Your task to perform on an android device: install app "Pandora - Music & Podcasts" Image 0: 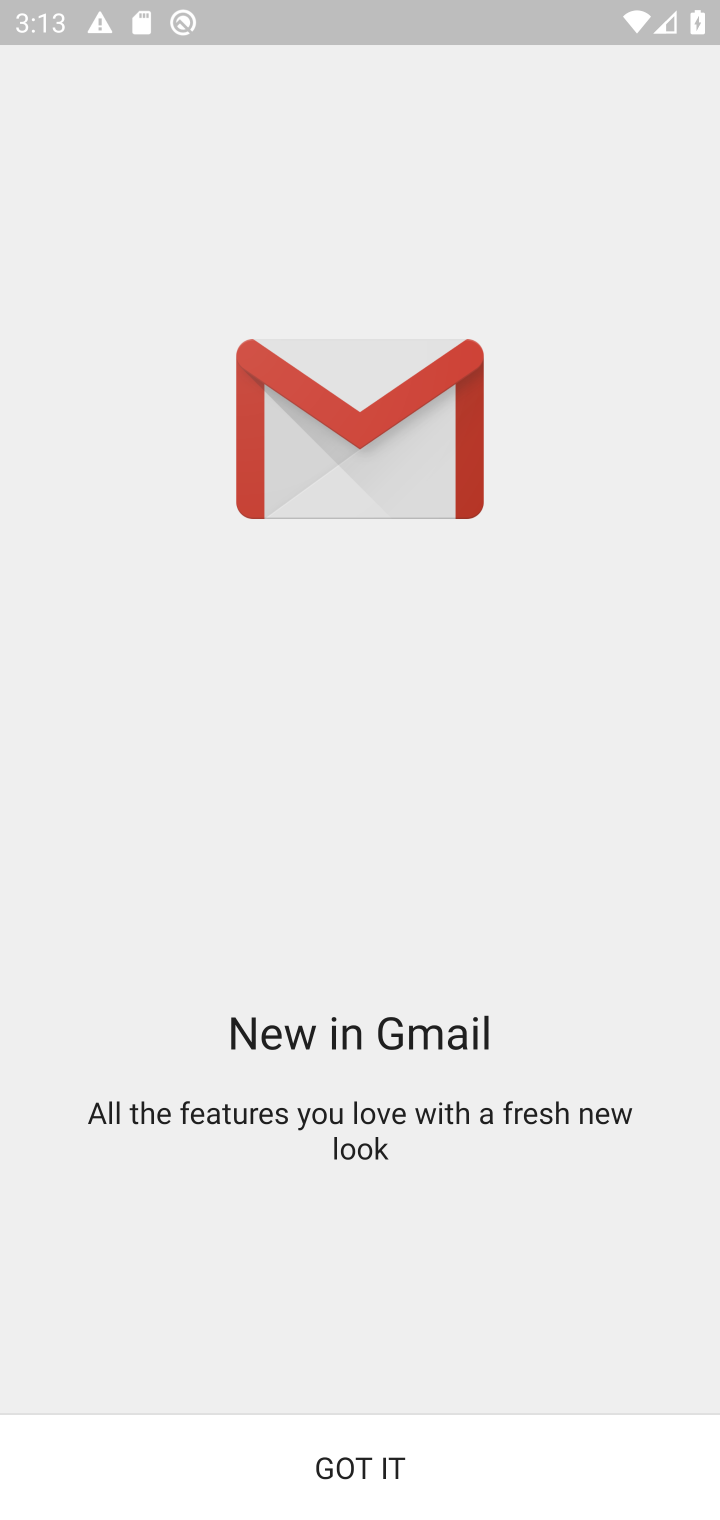
Step 0: press home button
Your task to perform on an android device: install app "Pandora - Music & Podcasts" Image 1: 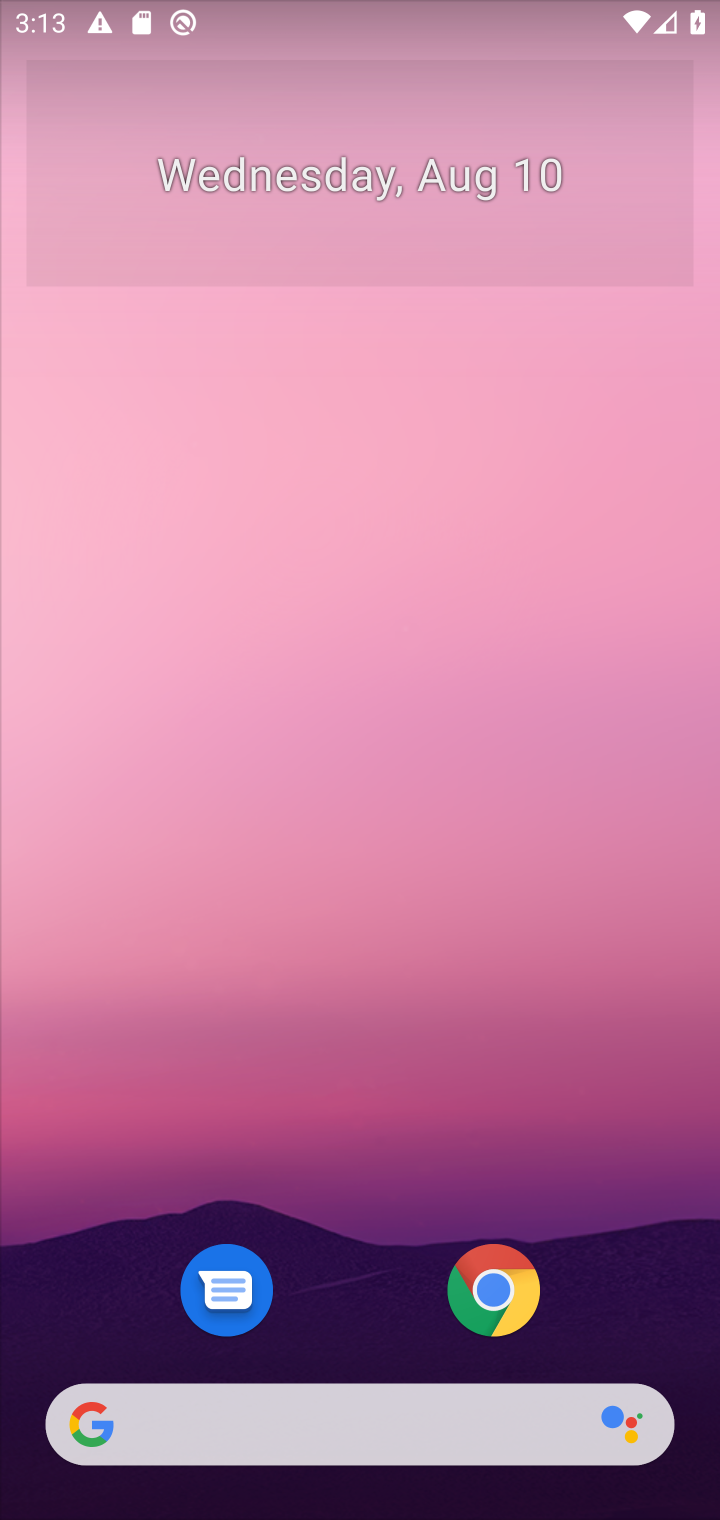
Step 1: drag from (401, 1362) to (189, 125)
Your task to perform on an android device: install app "Pandora - Music & Podcasts" Image 2: 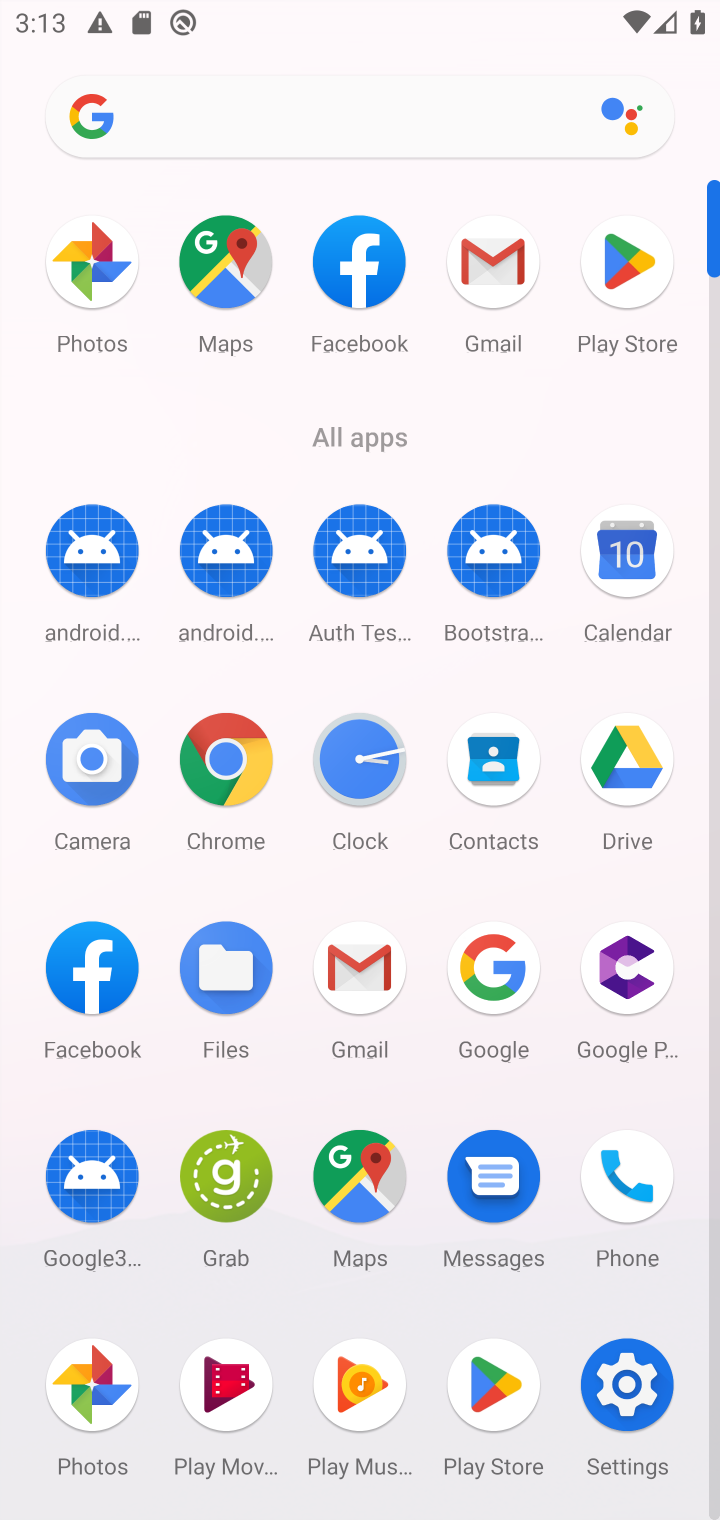
Step 2: click (502, 1405)
Your task to perform on an android device: install app "Pandora - Music & Podcasts" Image 3: 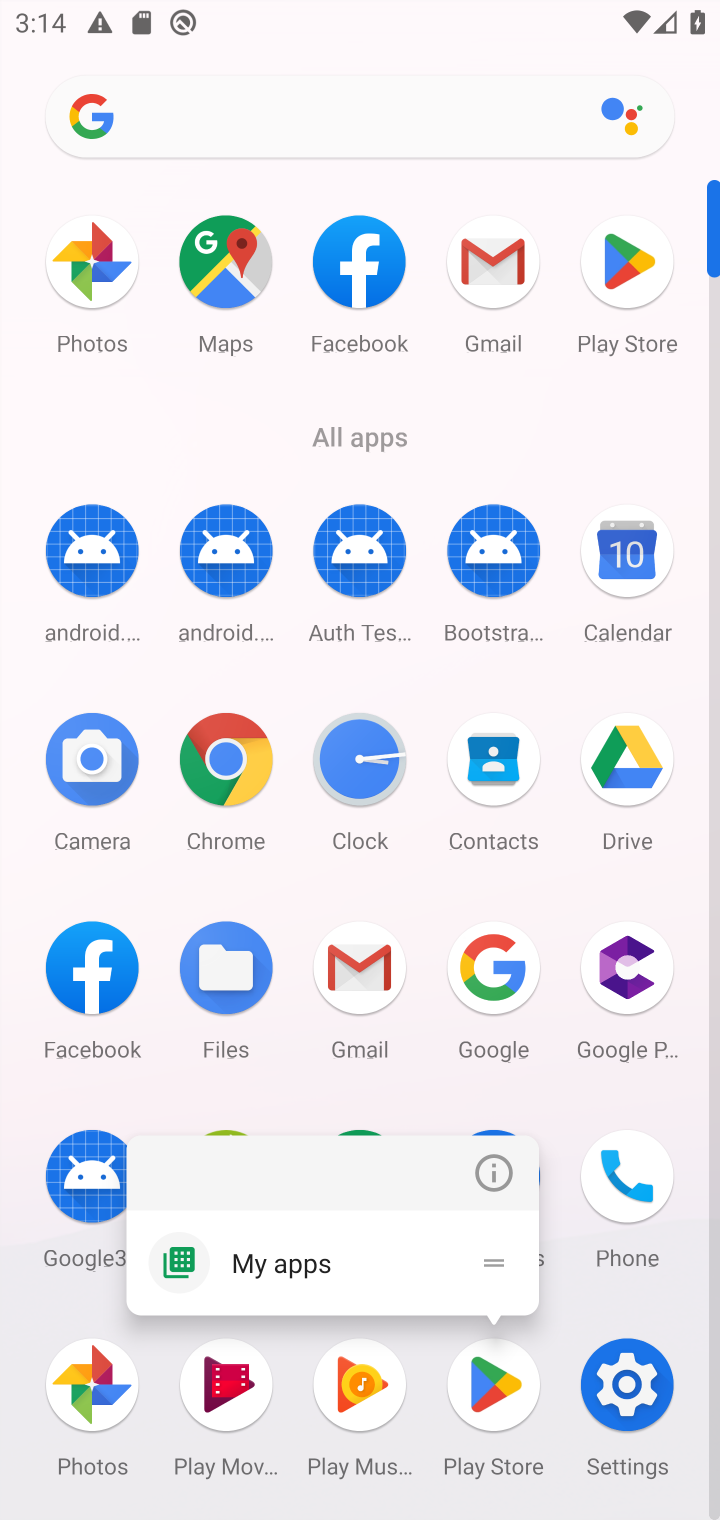
Step 3: click (612, 280)
Your task to perform on an android device: install app "Pandora - Music & Podcasts" Image 4: 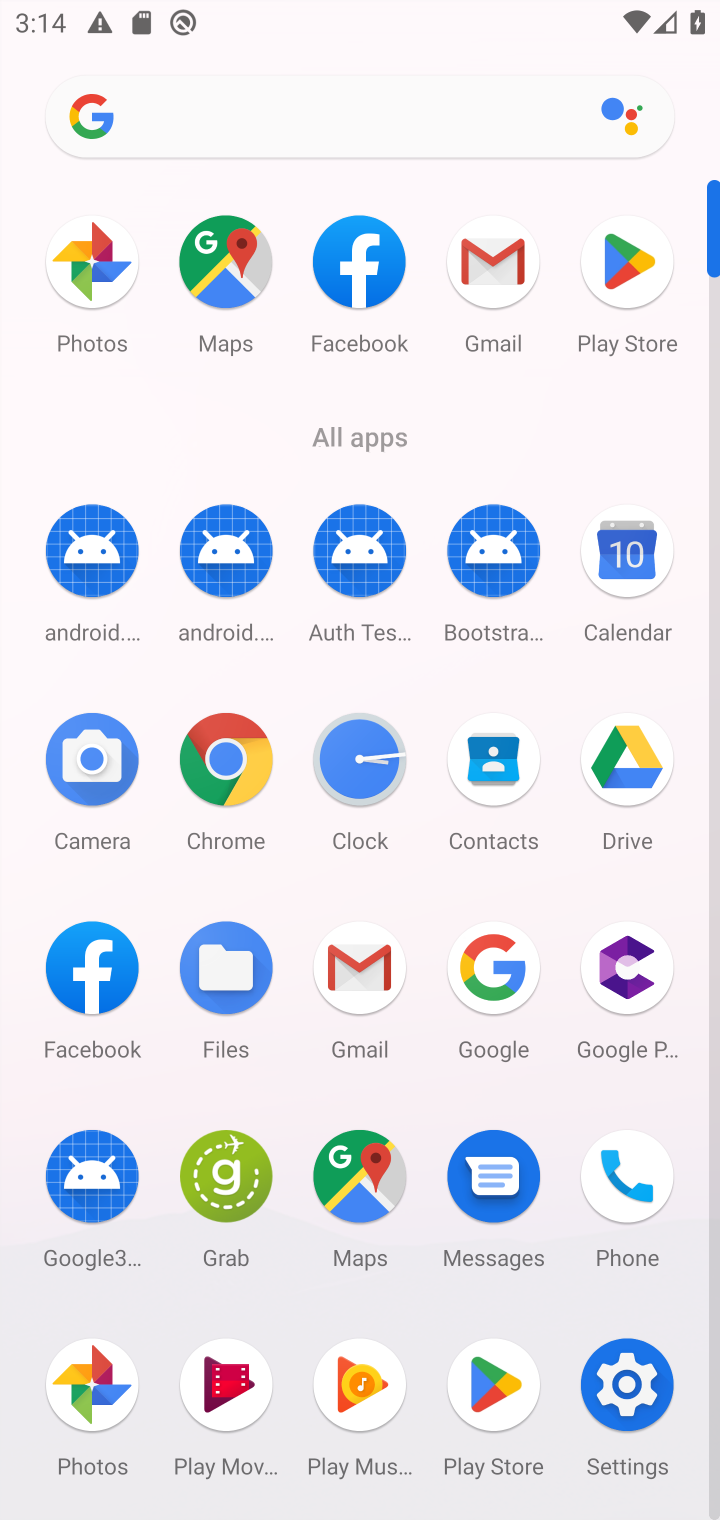
Step 4: click (620, 249)
Your task to perform on an android device: install app "Pandora - Music & Podcasts" Image 5: 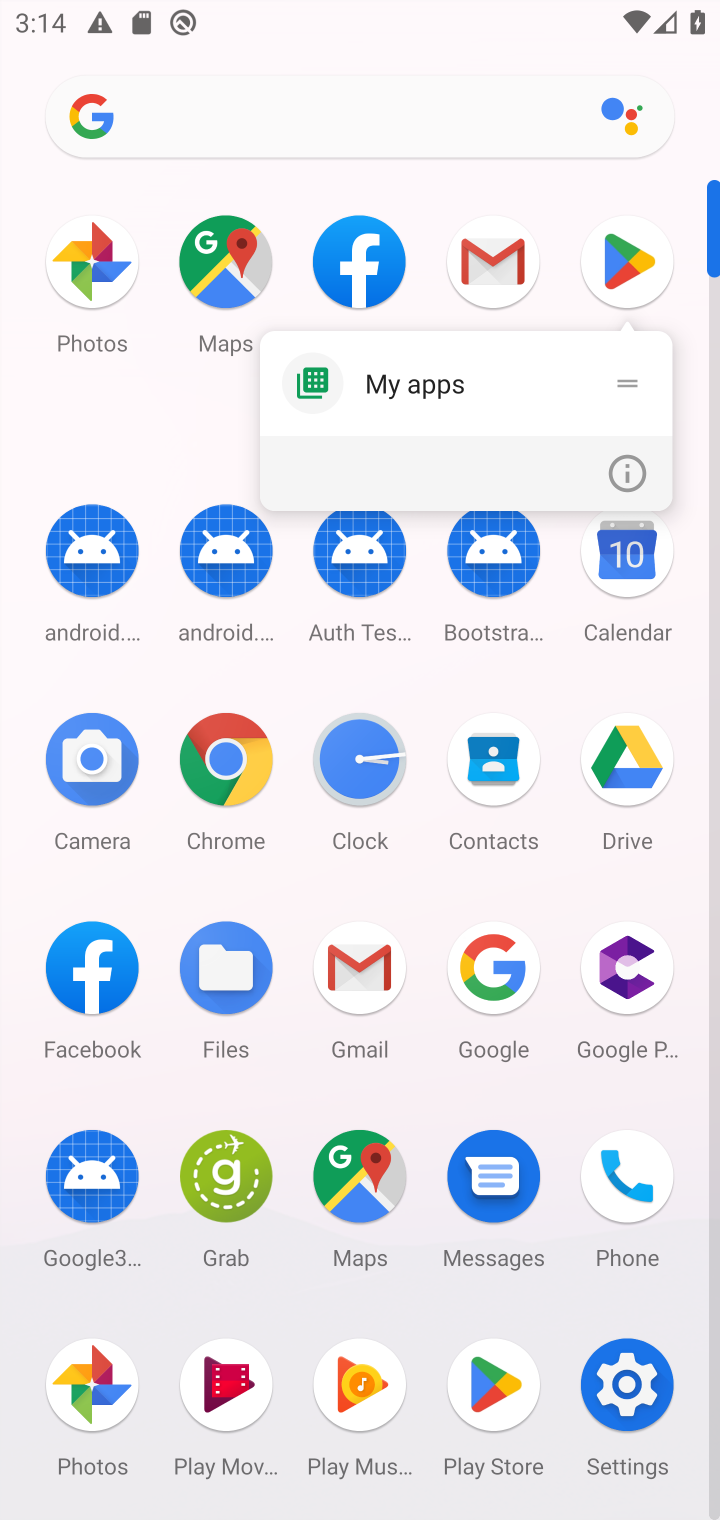
Step 5: click (626, 252)
Your task to perform on an android device: install app "Pandora - Music & Podcasts" Image 6: 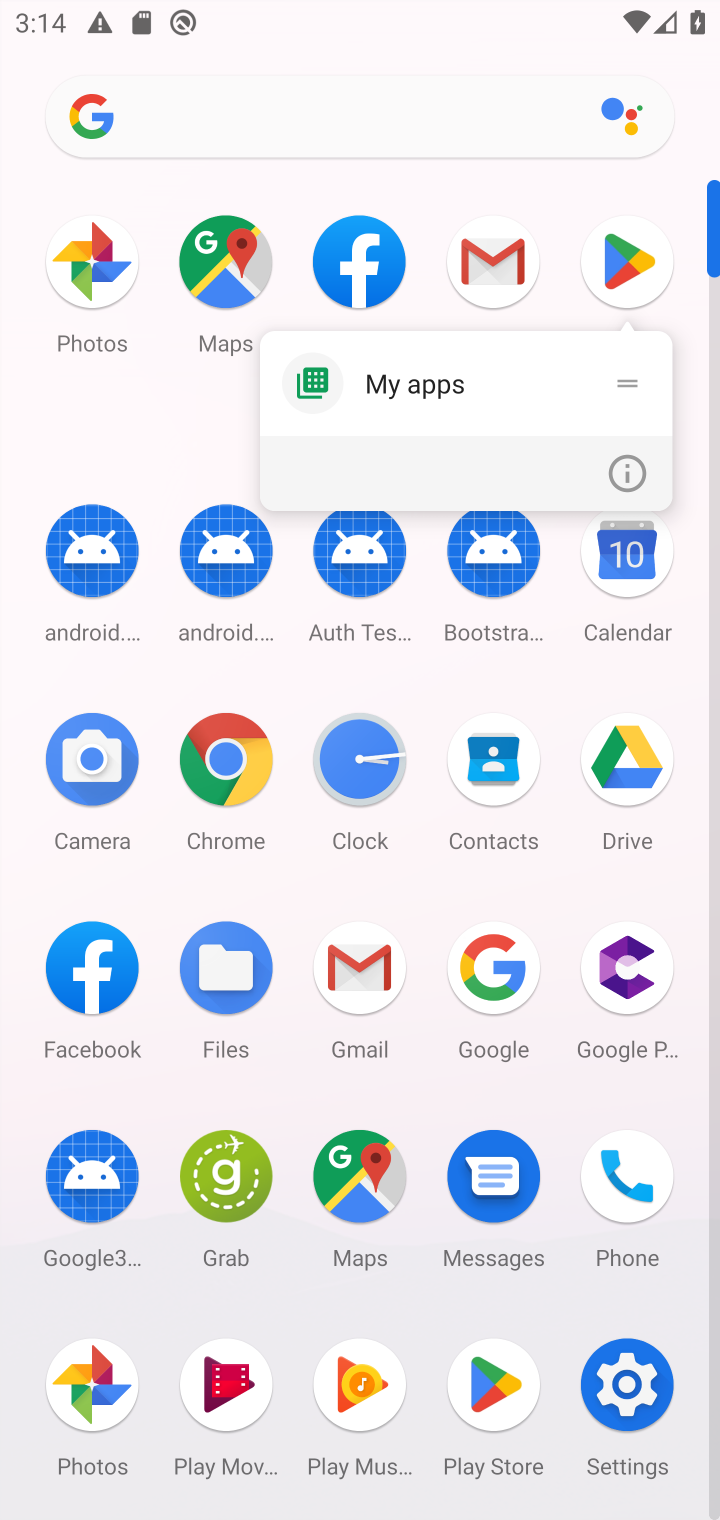
Step 6: click (626, 252)
Your task to perform on an android device: install app "Pandora - Music & Podcasts" Image 7: 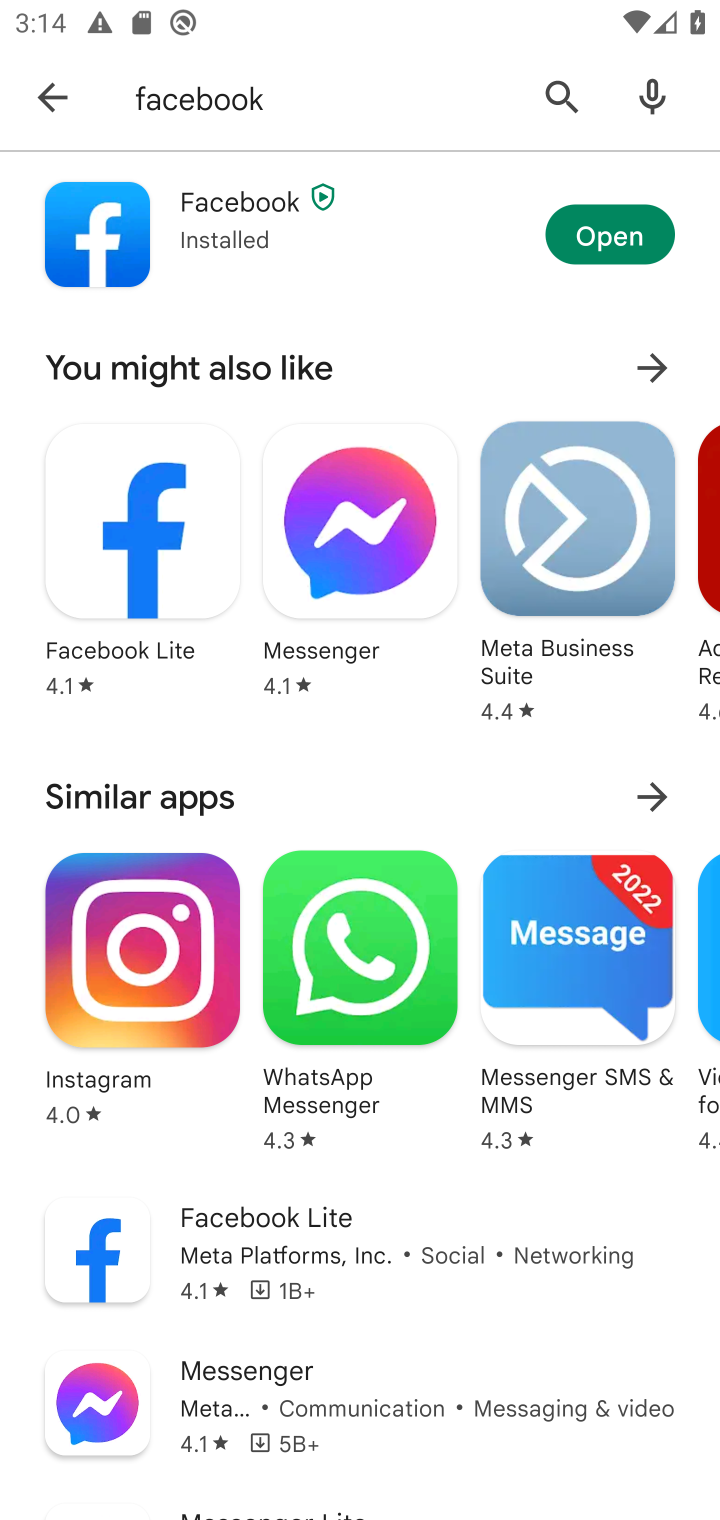
Step 7: click (48, 109)
Your task to perform on an android device: install app "Pandora - Music & Podcasts" Image 8: 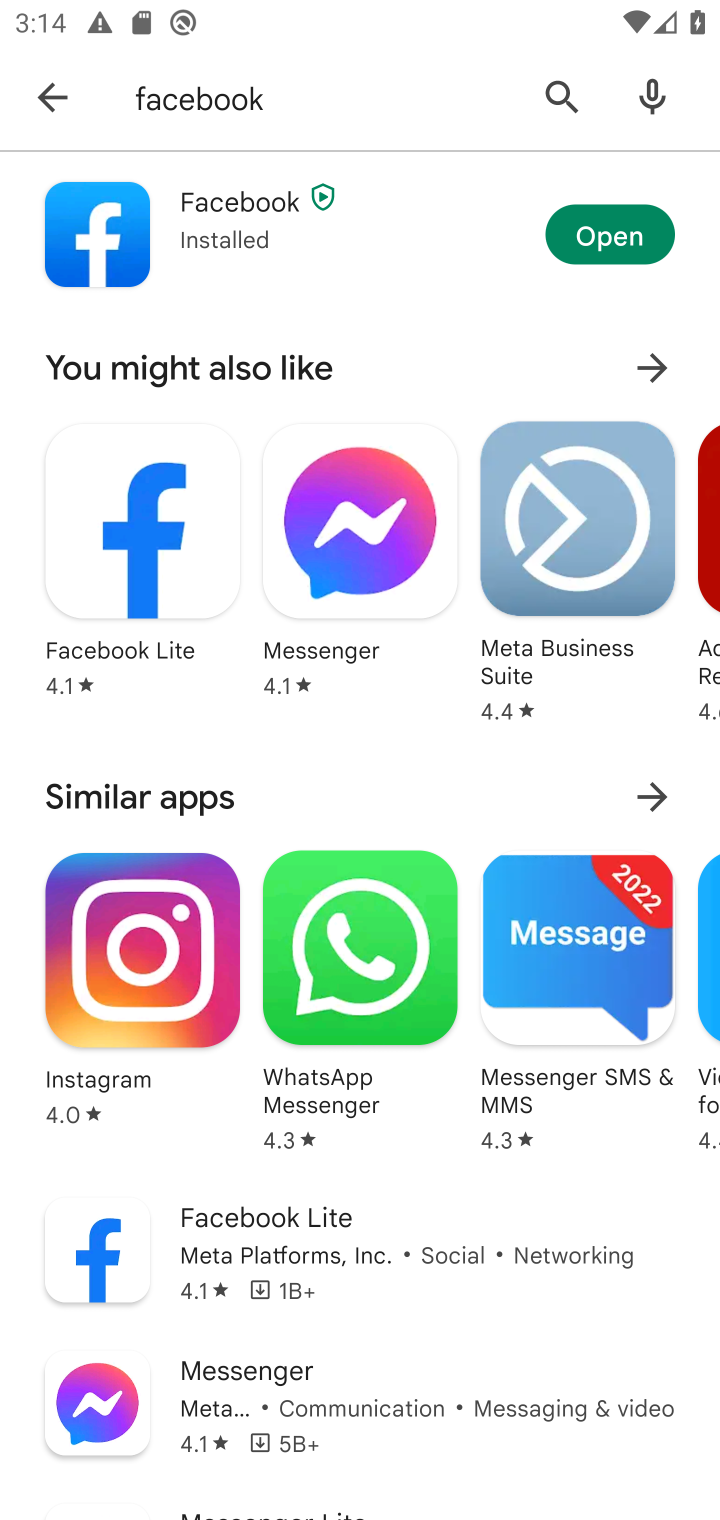
Step 8: click (569, 78)
Your task to perform on an android device: install app "Pandora - Music & Podcasts" Image 9: 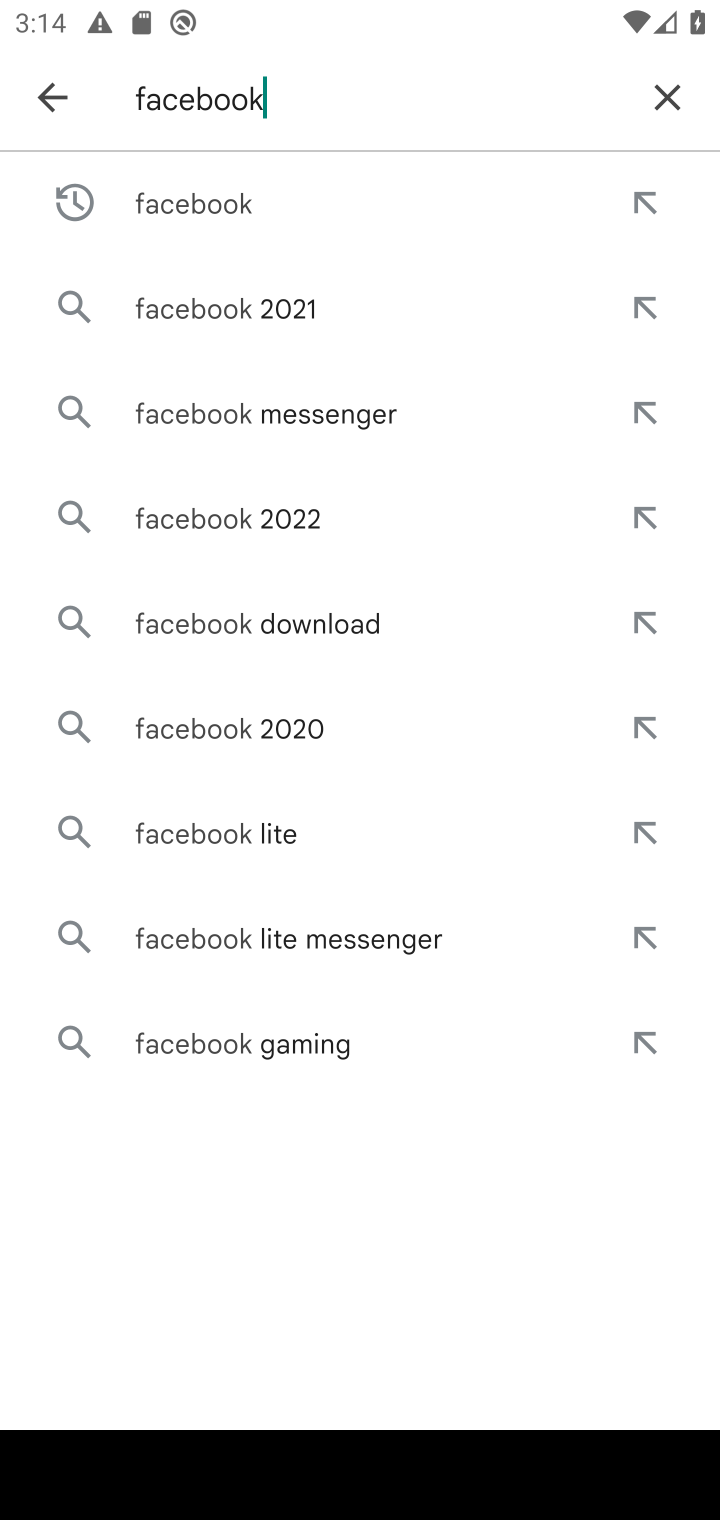
Step 9: type "Pandora"
Your task to perform on an android device: install app "Pandora - Music & Podcasts" Image 10: 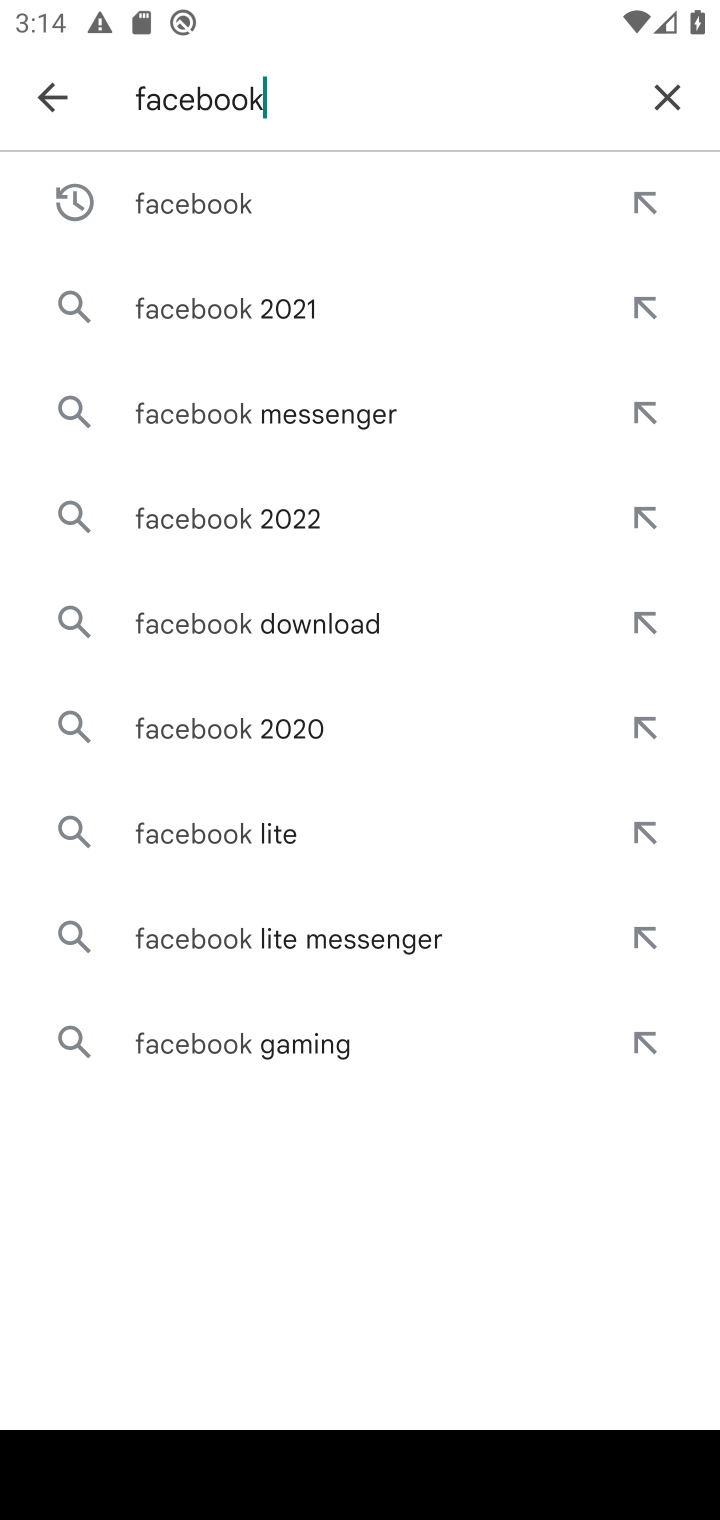
Step 10: click (655, 100)
Your task to perform on an android device: install app "Pandora - Music & Podcasts" Image 11: 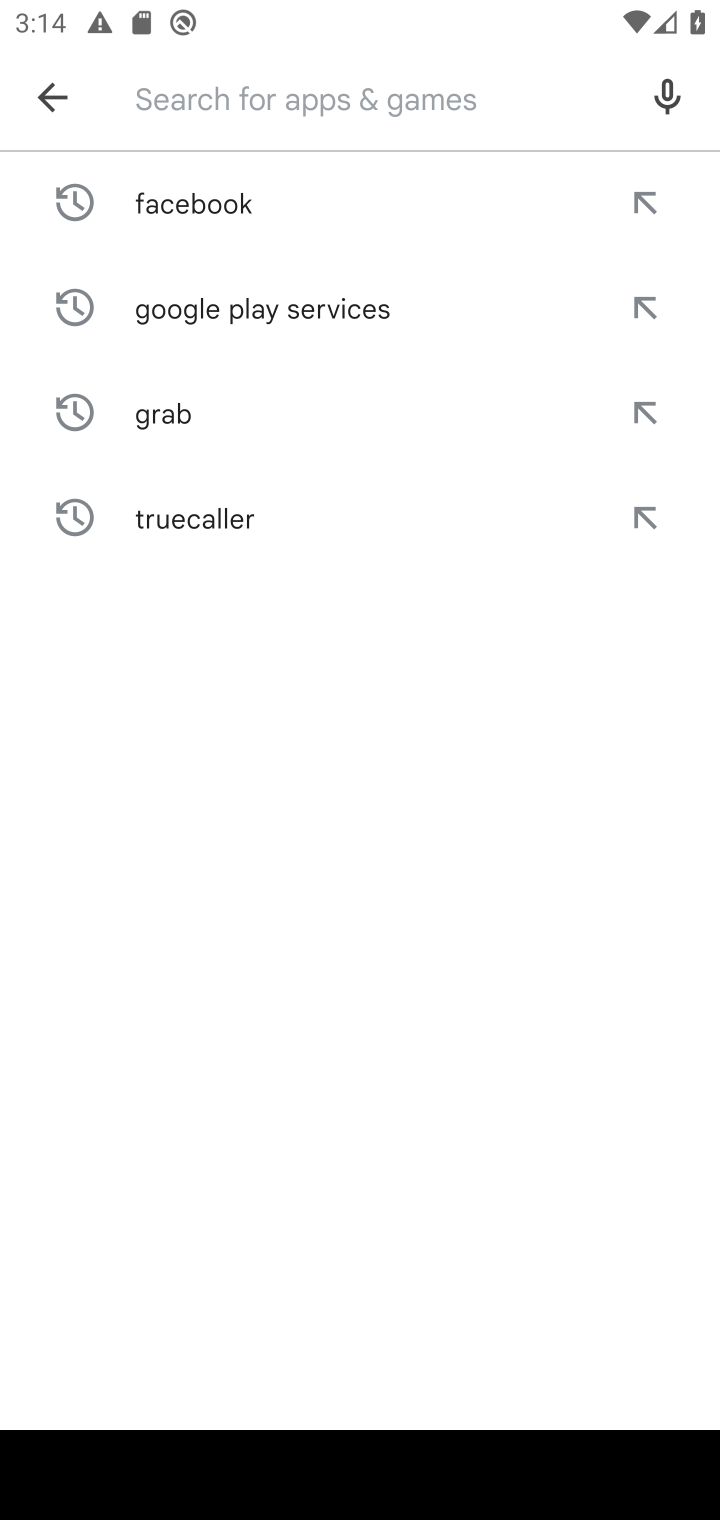
Step 11: type "Pandora"
Your task to perform on an android device: install app "Pandora - Music & Podcasts" Image 12: 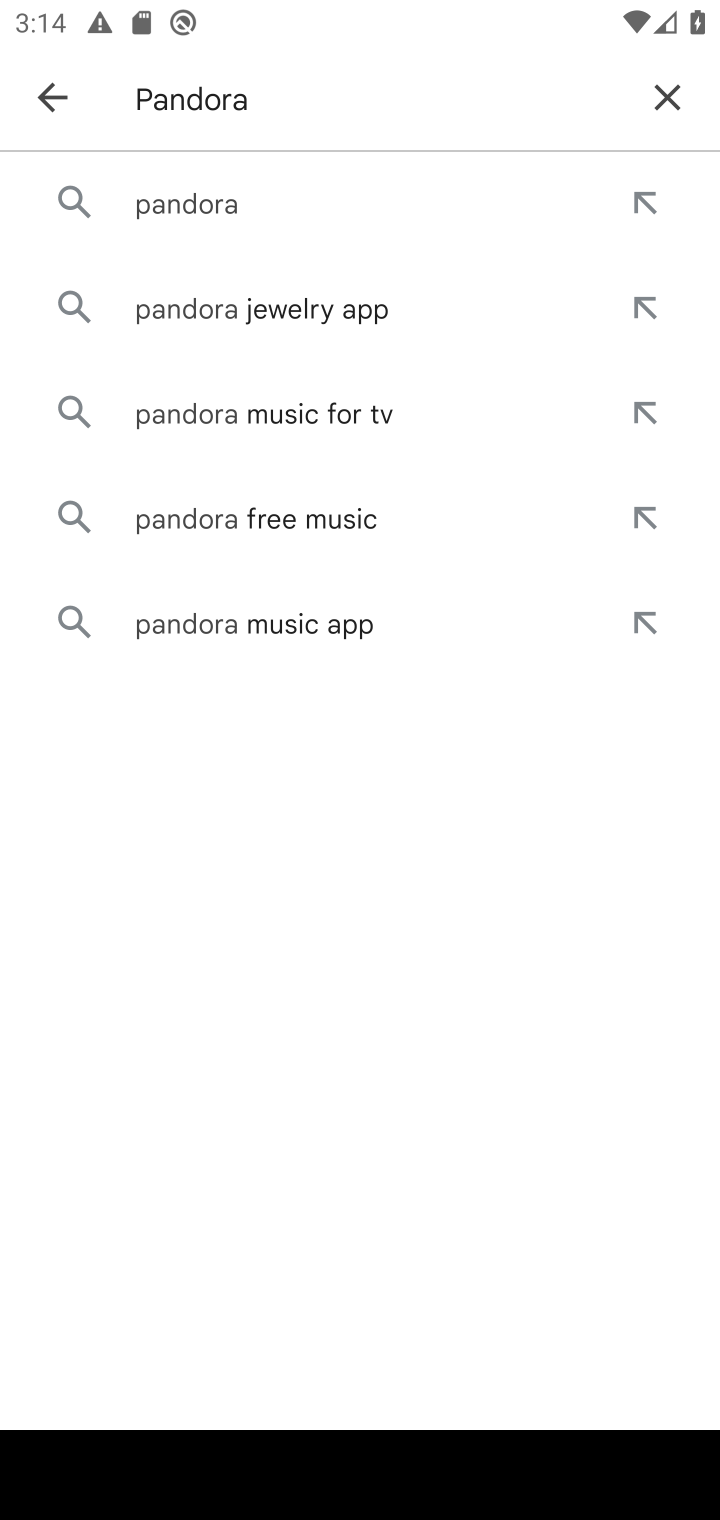
Step 12: click (195, 222)
Your task to perform on an android device: install app "Pandora - Music & Podcasts" Image 13: 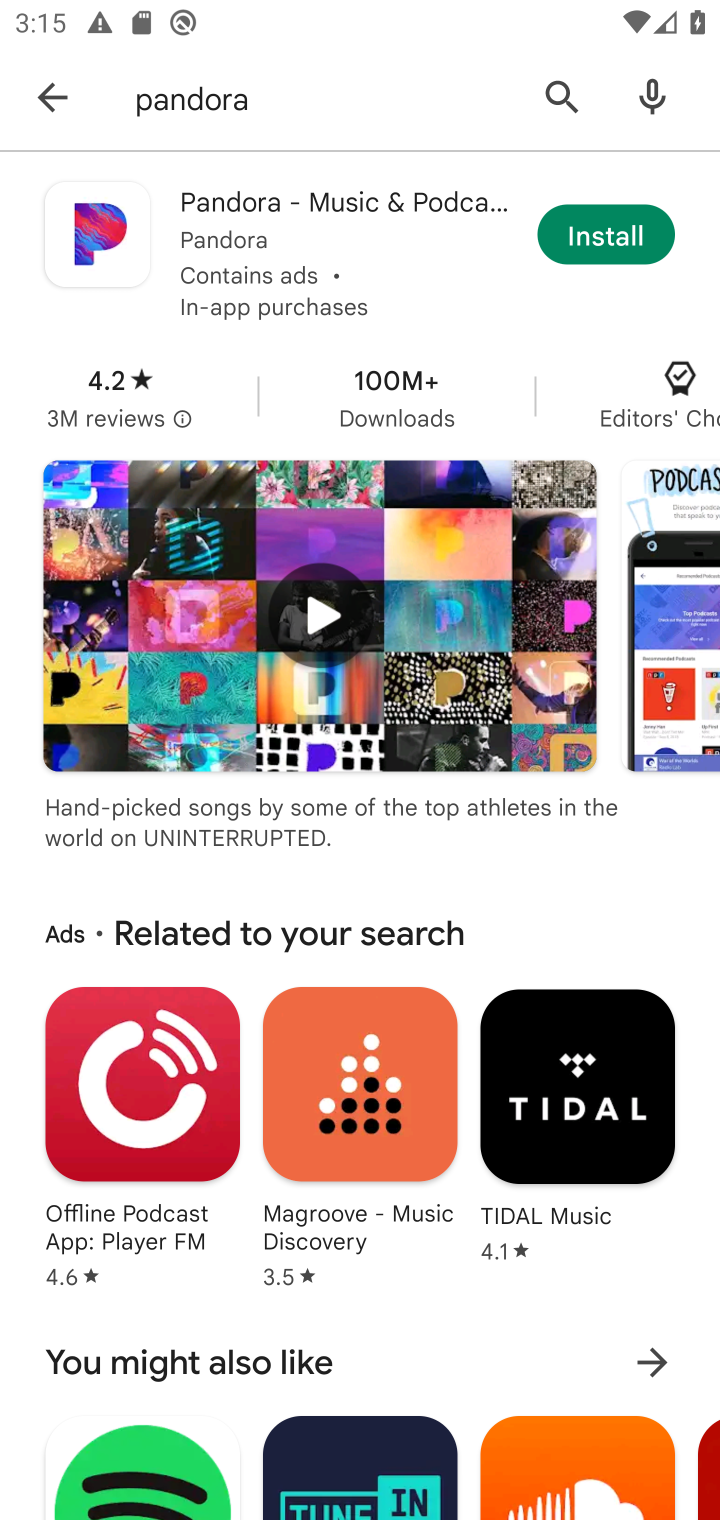
Step 13: click (629, 234)
Your task to perform on an android device: install app "Pandora - Music & Podcasts" Image 14: 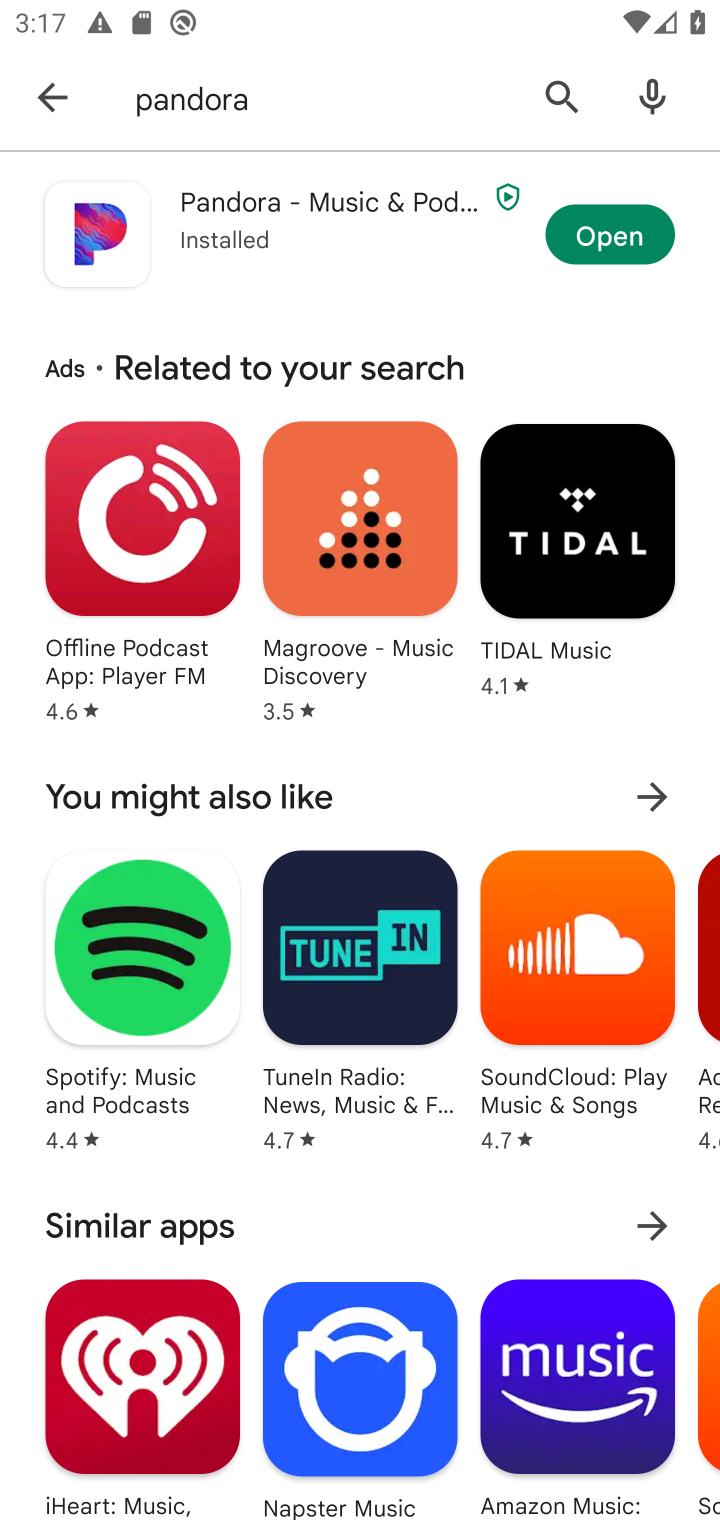
Step 14: click (589, 234)
Your task to perform on an android device: install app "Pandora - Music & Podcasts" Image 15: 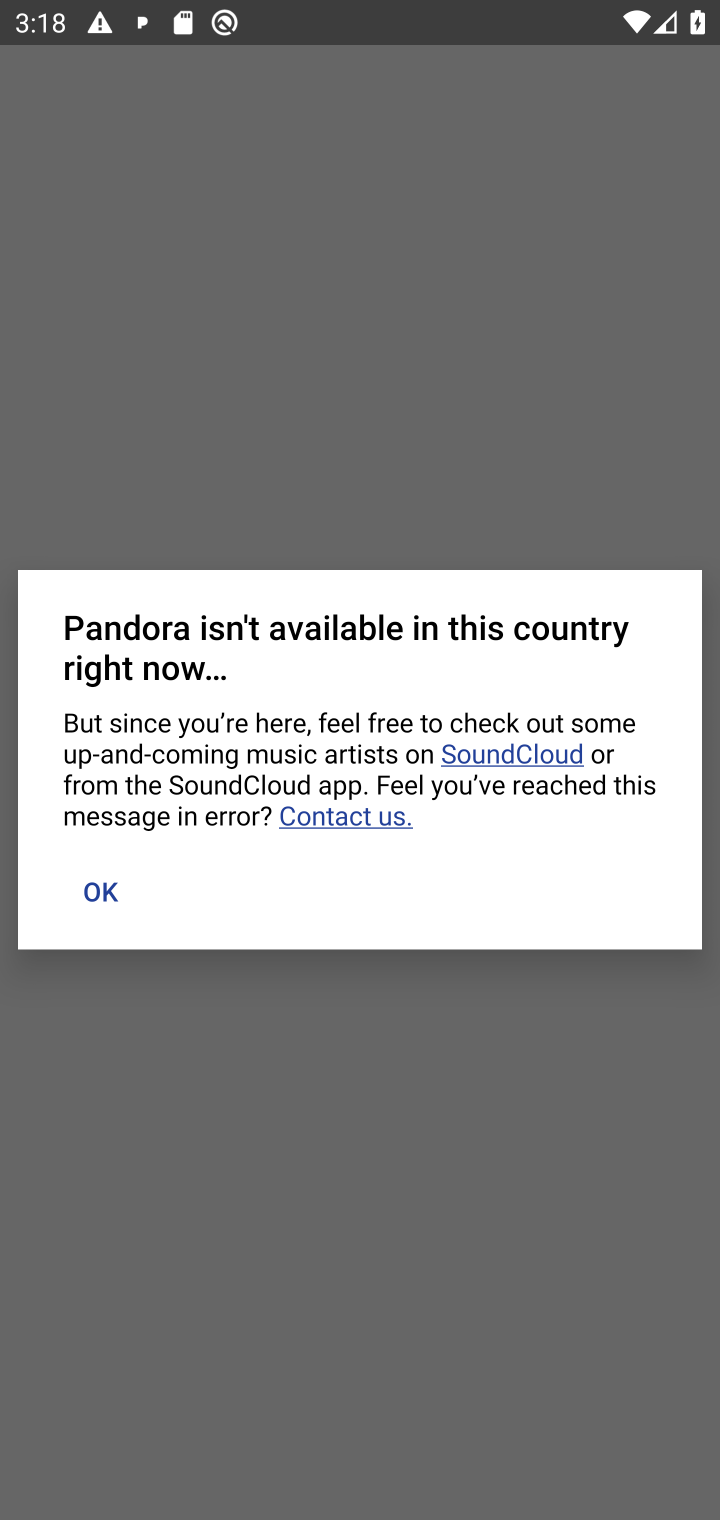
Step 15: task complete